Your task to perform on an android device: find snoozed emails in the gmail app Image 0: 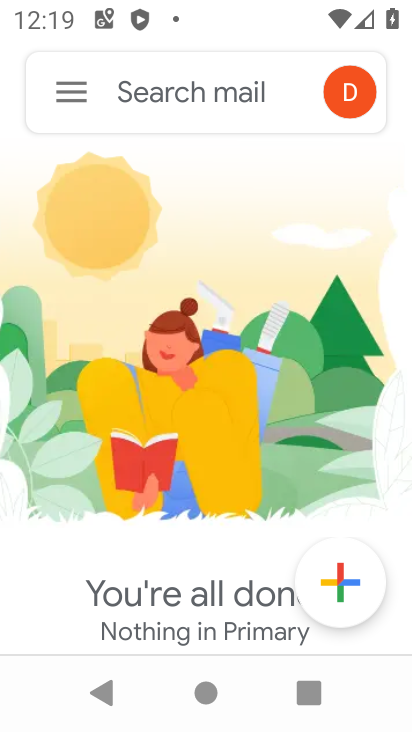
Step 0: click (82, 96)
Your task to perform on an android device: find snoozed emails in the gmail app Image 1: 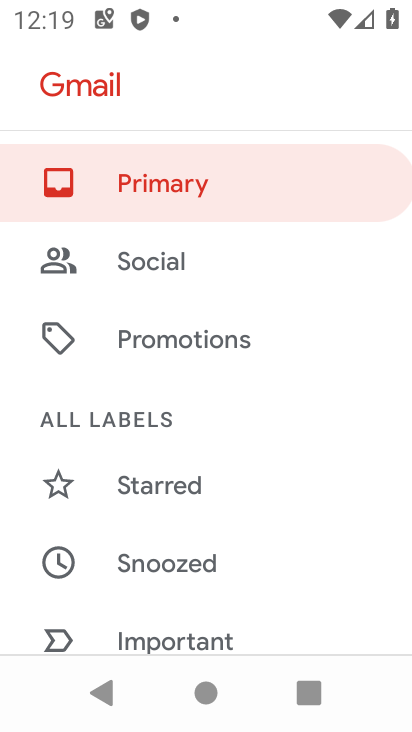
Step 1: click (145, 551)
Your task to perform on an android device: find snoozed emails in the gmail app Image 2: 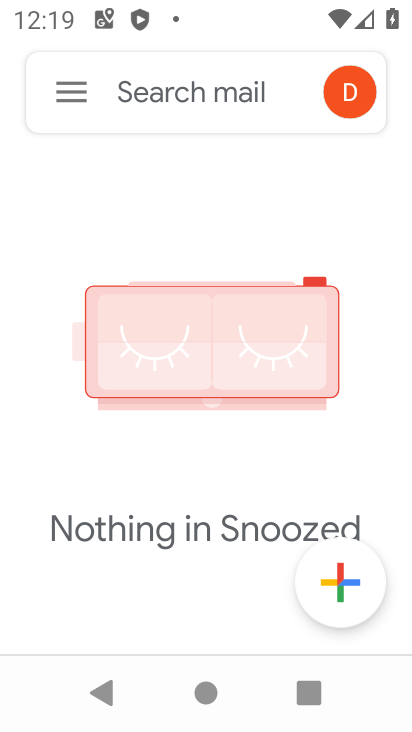
Step 2: task complete